Your task to perform on an android device: turn off priority inbox in the gmail app Image 0: 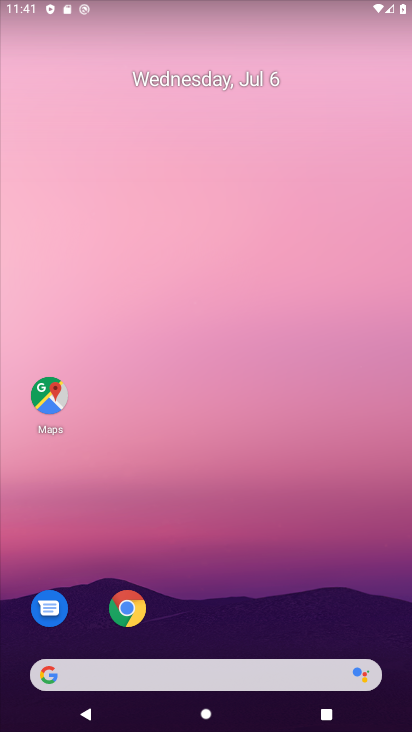
Step 0: drag from (292, 594) to (303, 7)
Your task to perform on an android device: turn off priority inbox in the gmail app Image 1: 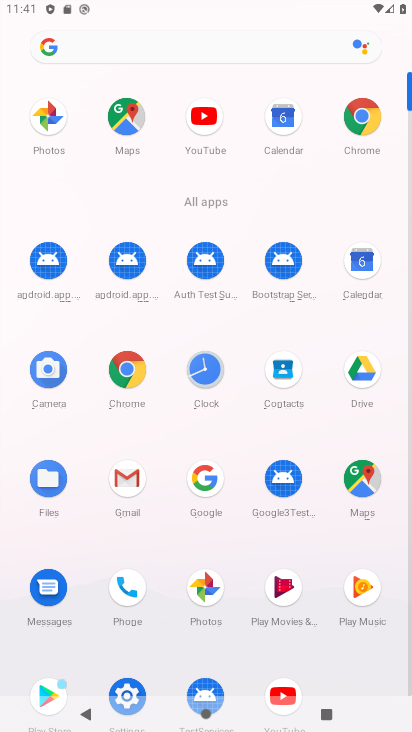
Step 1: click (128, 505)
Your task to perform on an android device: turn off priority inbox in the gmail app Image 2: 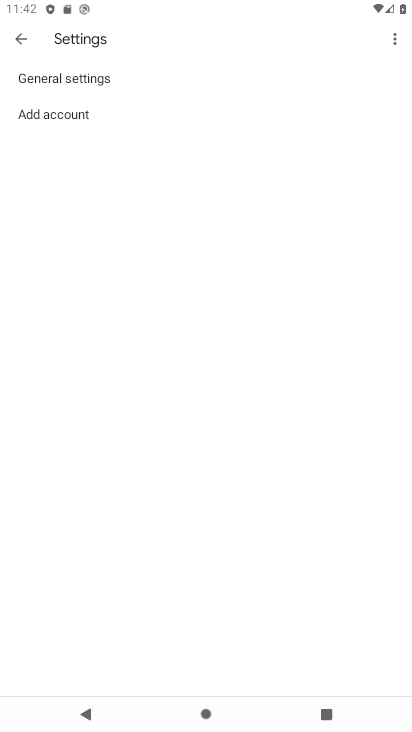
Step 2: click (19, 35)
Your task to perform on an android device: turn off priority inbox in the gmail app Image 3: 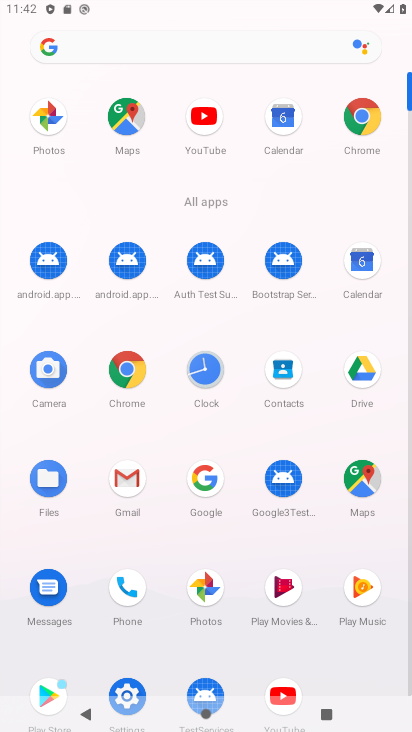
Step 3: click (131, 500)
Your task to perform on an android device: turn off priority inbox in the gmail app Image 4: 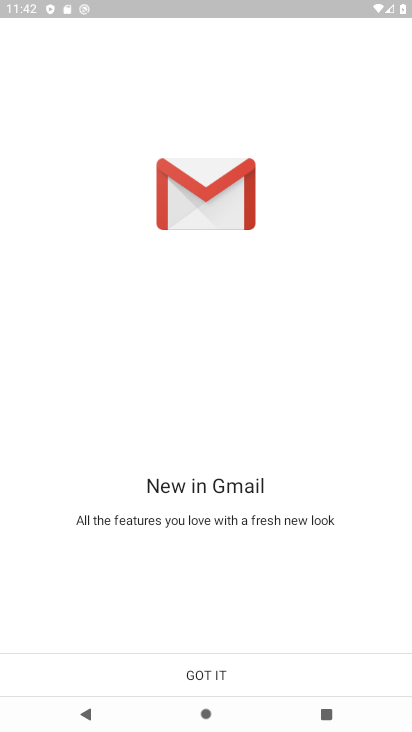
Step 4: click (157, 684)
Your task to perform on an android device: turn off priority inbox in the gmail app Image 5: 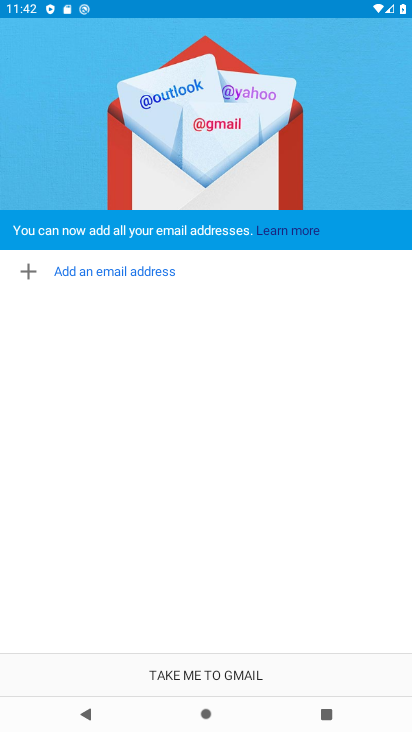
Step 5: click (221, 683)
Your task to perform on an android device: turn off priority inbox in the gmail app Image 6: 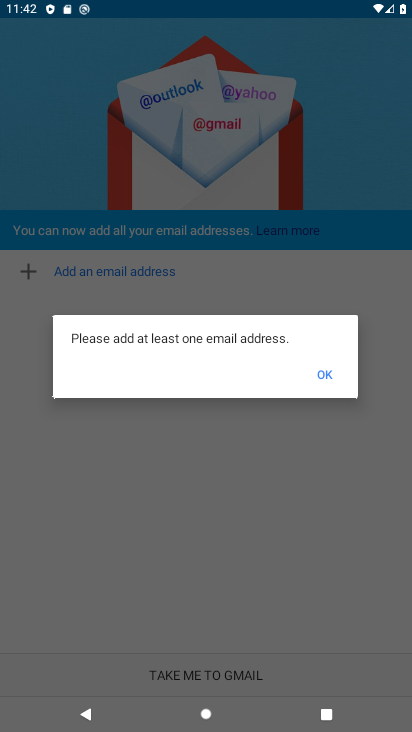
Step 6: task complete